Your task to perform on an android device: search for starred emails in the gmail app Image 0: 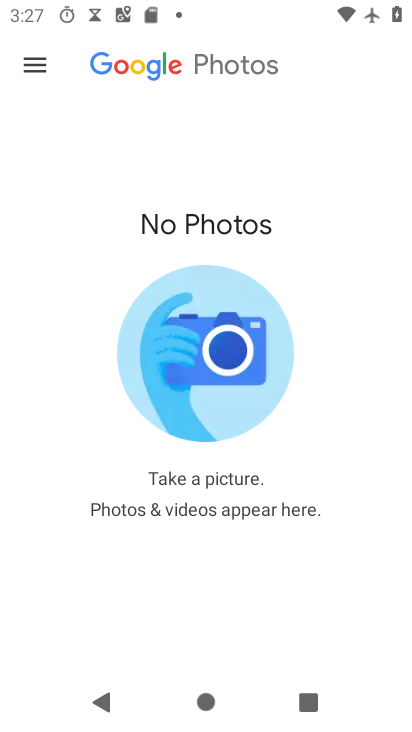
Step 0: press home button
Your task to perform on an android device: search for starred emails in the gmail app Image 1: 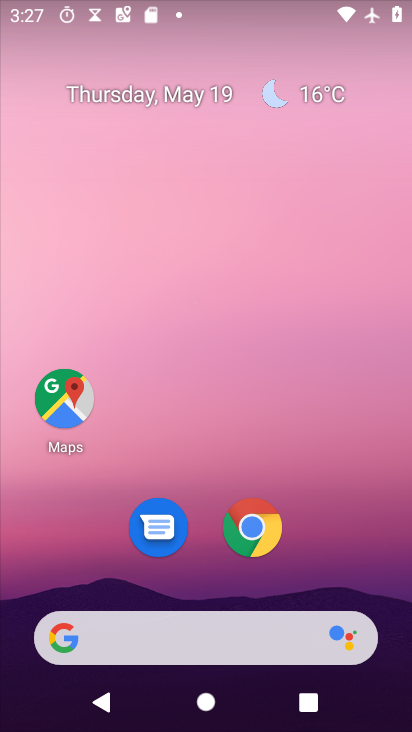
Step 1: drag from (334, 570) to (218, 27)
Your task to perform on an android device: search for starred emails in the gmail app Image 2: 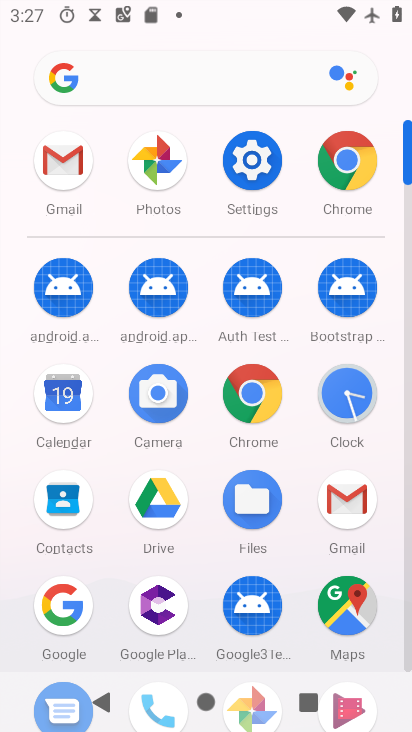
Step 2: click (350, 498)
Your task to perform on an android device: search for starred emails in the gmail app Image 3: 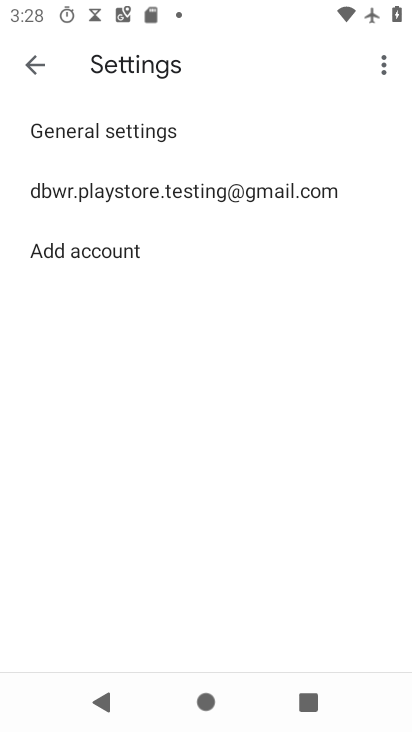
Step 3: click (164, 191)
Your task to perform on an android device: search for starred emails in the gmail app Image 4: 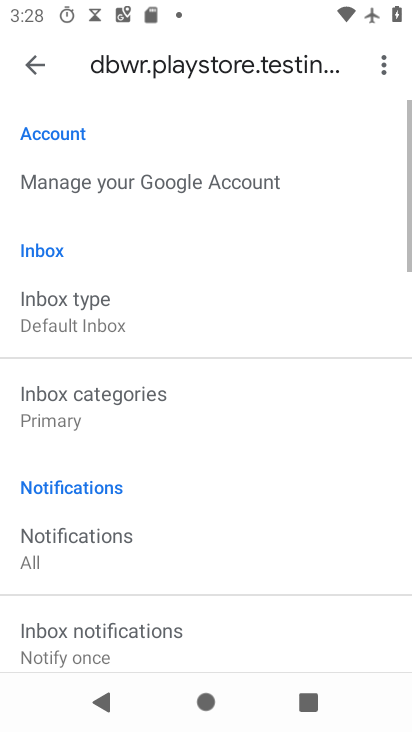
Step 4: click (36, 69)
Your task to perform on an android device: search for starred emails in the gmail app Image 5: 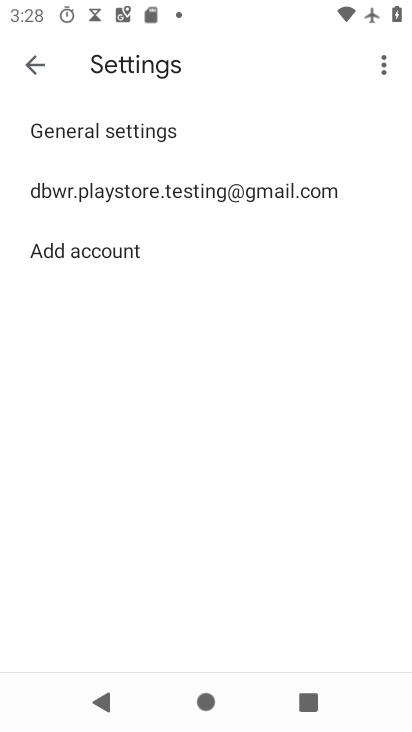
Step 5: click (36, 69)
Your task to perform on an android device: search for starred emails in the gmail app Image 6: 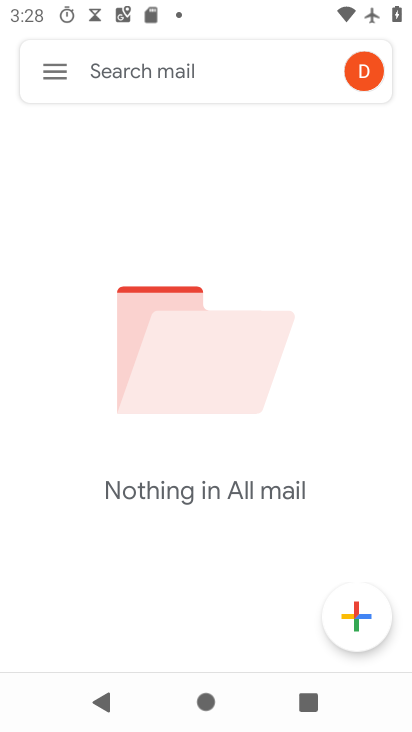
Step 6: click (184, 73)
Your task to perform on an android device: search for starred emails in the gmail app Image 7: 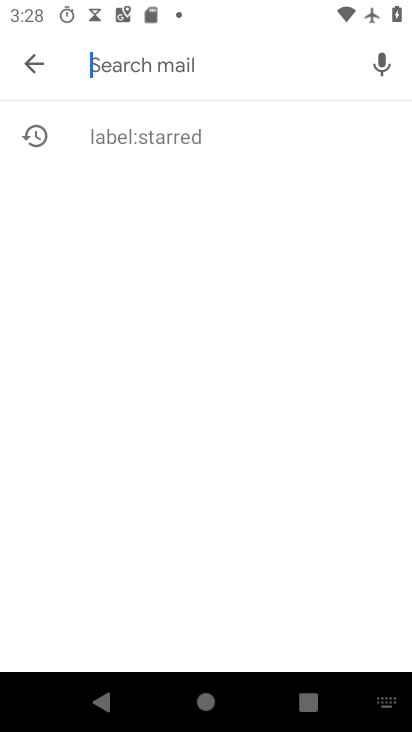
Step 7: click (135, 139)
Your task to perform on an android device: search for starred emails in the gmail app Image 8: 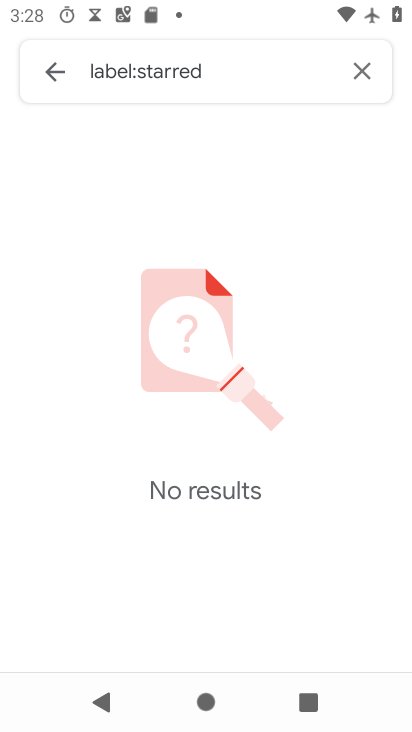
Step 8: task complete